Your task to perform on an android device: toggle location history Image 0: 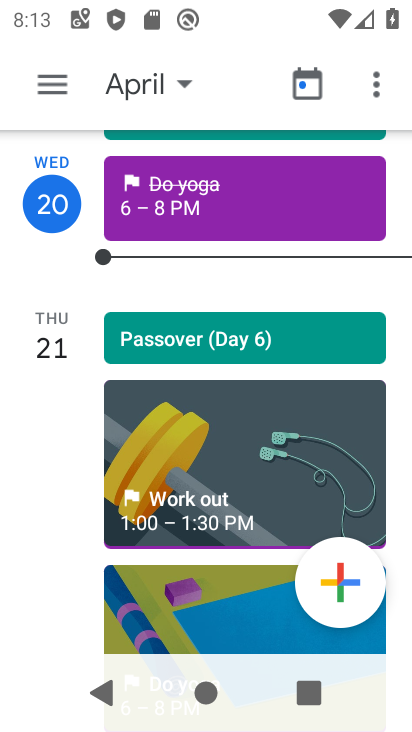
Step 0: press home button
Your task to perform on an android device: toggle location history Image 1: 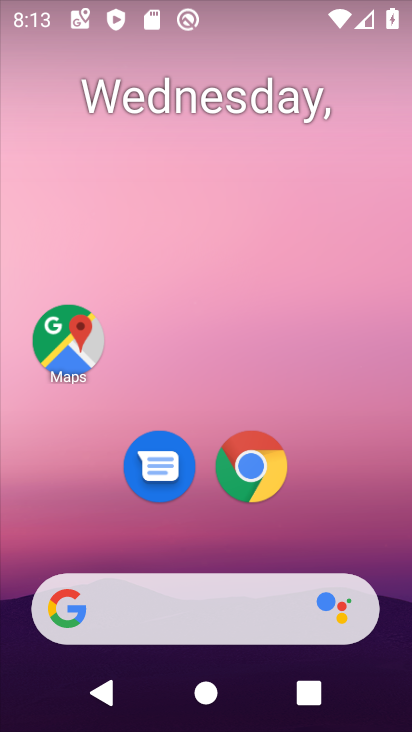
Step 1: drag from (247, 532) to (150, 24)
Your task to perform on an android device: toggle location history Image 2: 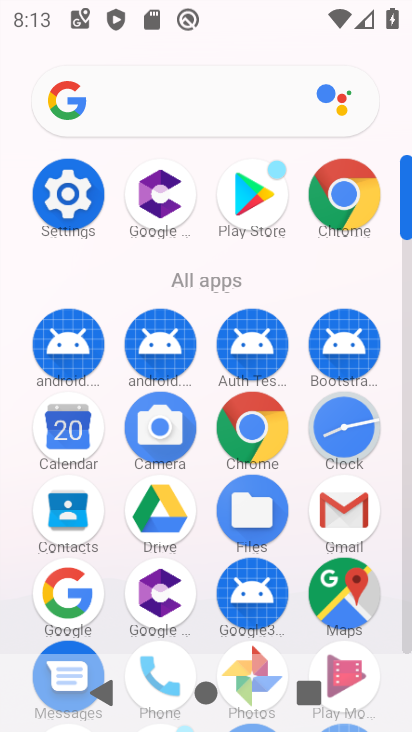
Step 2: click (55, 184)
Your task to perform on an android device: toggle location history Image 3: 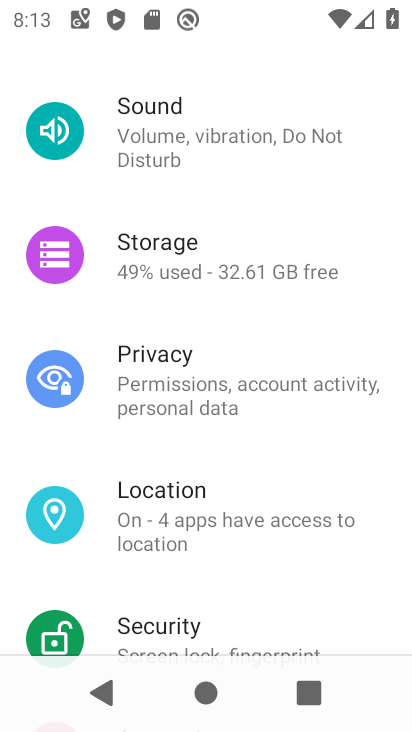
Step 3: click (183, 346)
Your task to perform on an android device: toggle location history Image 4: 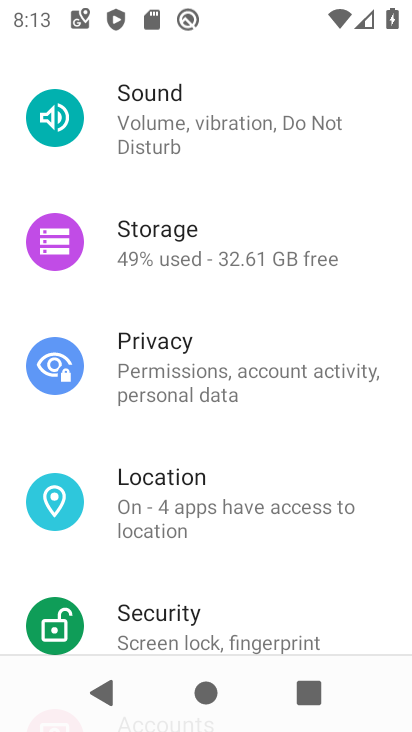
Step 4: click (164, 482)
Your task to perform on an android device: toggle location history Image 5: 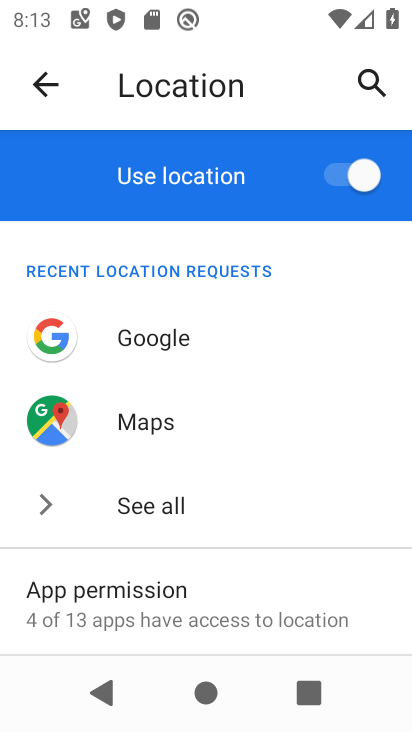
Step 5: drag from (196, 552) to (152, 373)
Your task to perform on an android device: toggle location history Image 6: 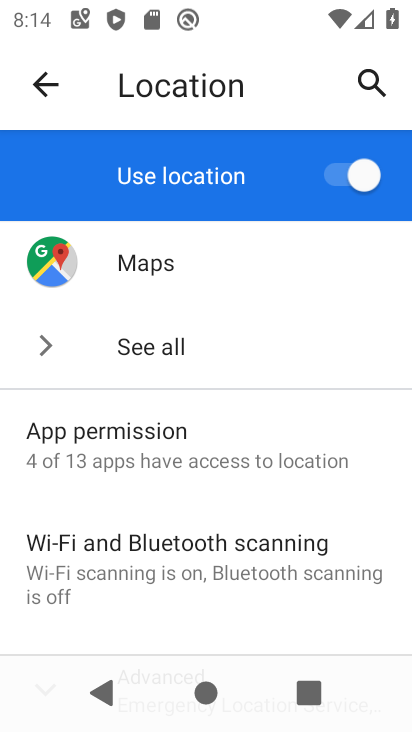
Step 6: drag from (174, 561) to (131, 313)
Your task to perform on an android device: toggle location history Image 7: 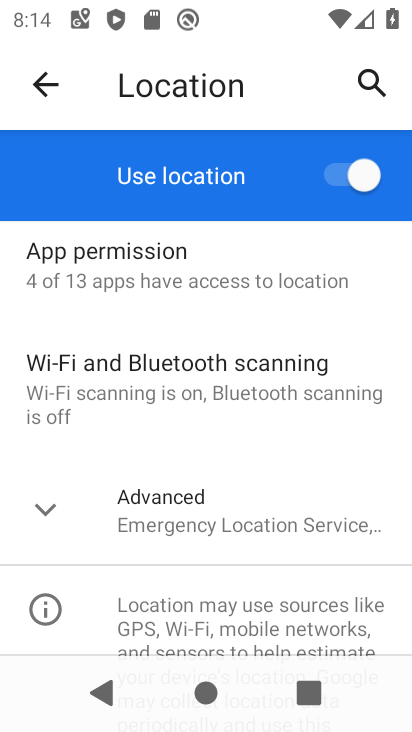
Step 7: click (142, 498)
Your task to perform on an android device: toggle location history Image 8: 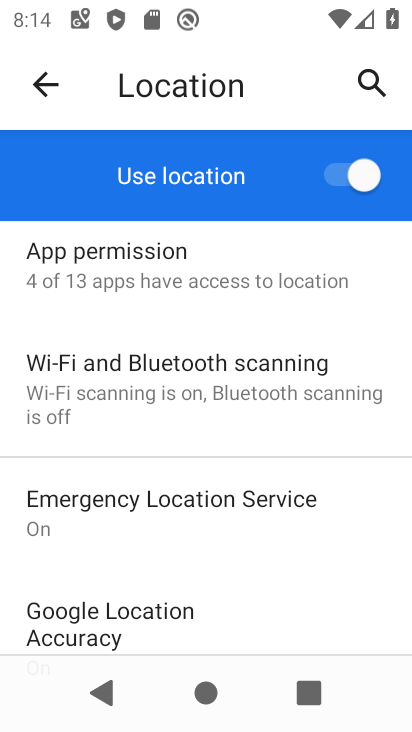
Step 8: drag from (187, 583) to (193, 359)
Your task to perform on an android device: toggle location history Image 9: 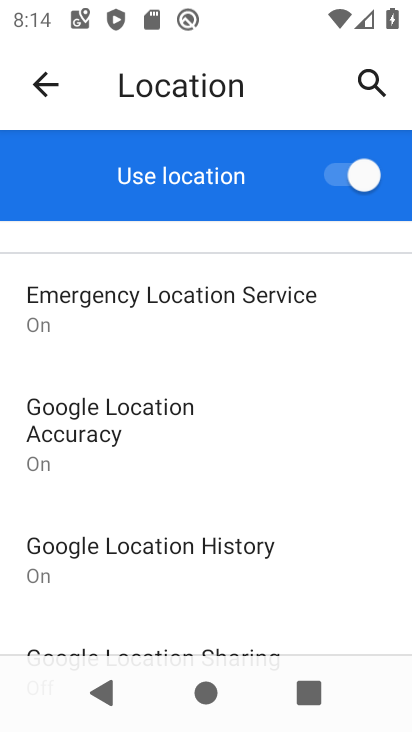
Step 9: click (215, 561)
Your task to perform on an android device: toggle location history Image 10: 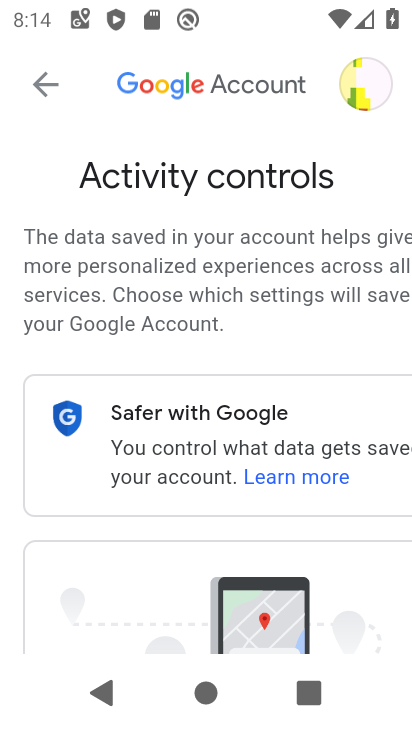
Step 10: drag from (179, 588) to (138, 332)
Your task to perform on an android device: toggle location history Image 11: 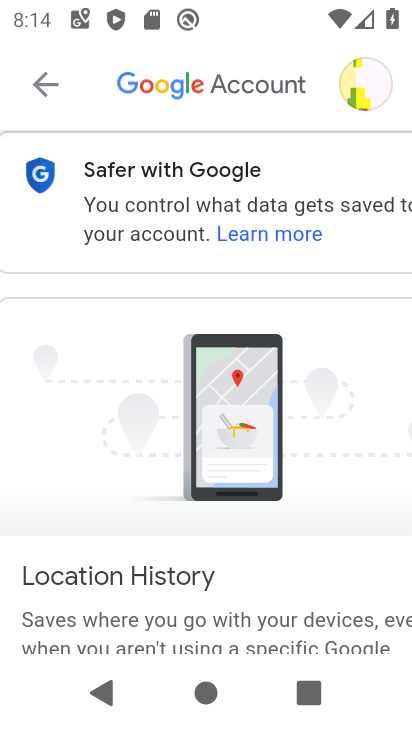
Step 11: drag from (119, 455) to (92, 276)
Your task to perform on an android device: toggle location history Image 12: 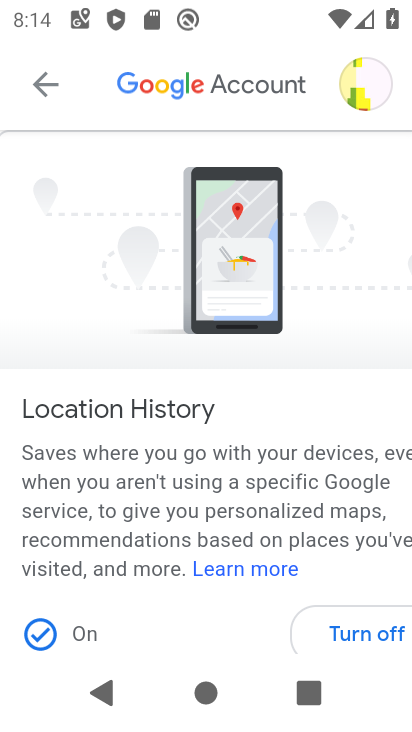
Step 12: click (352, 630)
Your task to perform on an android device: toggle location history Image 13: 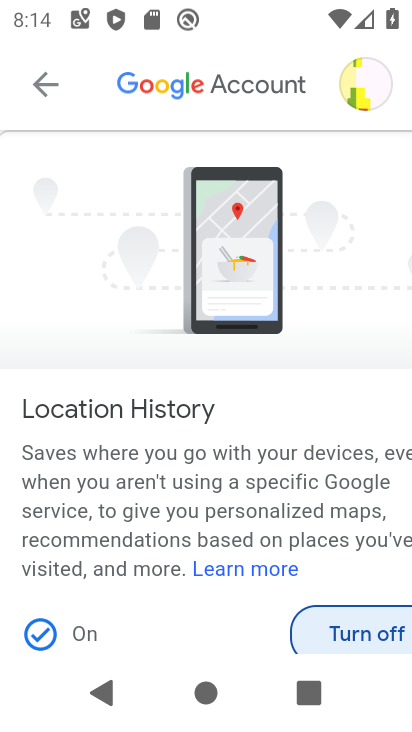
Step 13: click (388, 637)
Your task to perform on an android device: toggle location history Image 14: 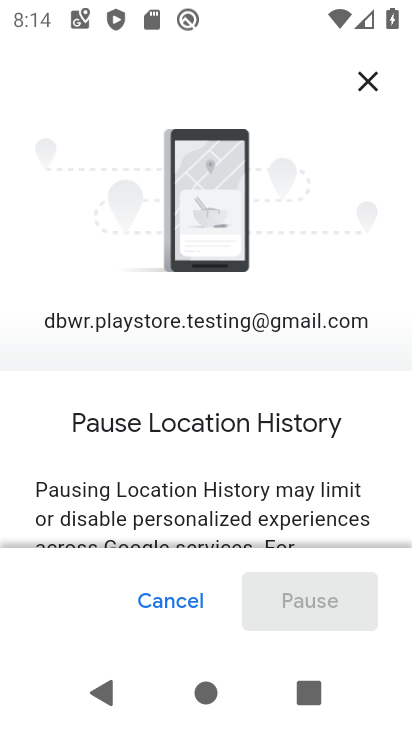
Step 14: drag from (258, 499) to (278, 199)
Your task to perform on an android device: toggle location history Image 15: 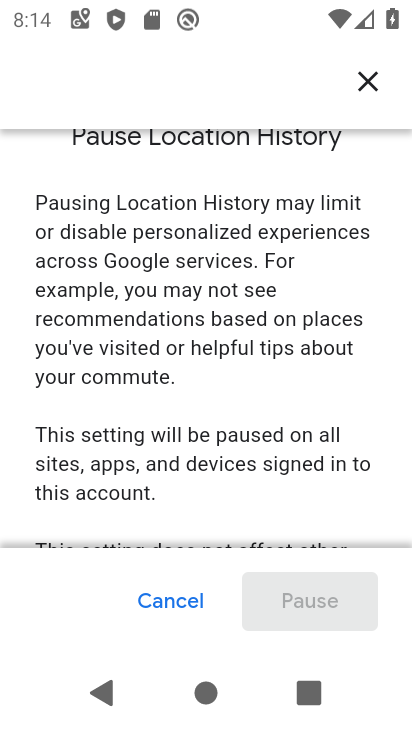
Step 15: drag from (349, 378) to (308, 236)
Your task to perform on an android device: toggle location history Image 16: 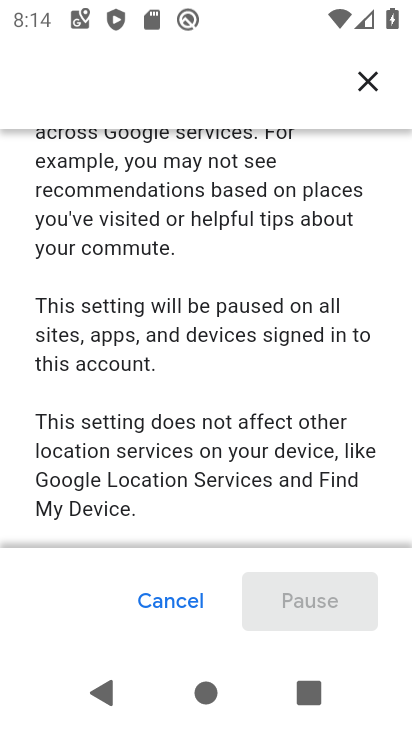
Step 16: drag from (294, 405) to (241, 222)
Your task to perform on an android device: toggle location history Image 17: 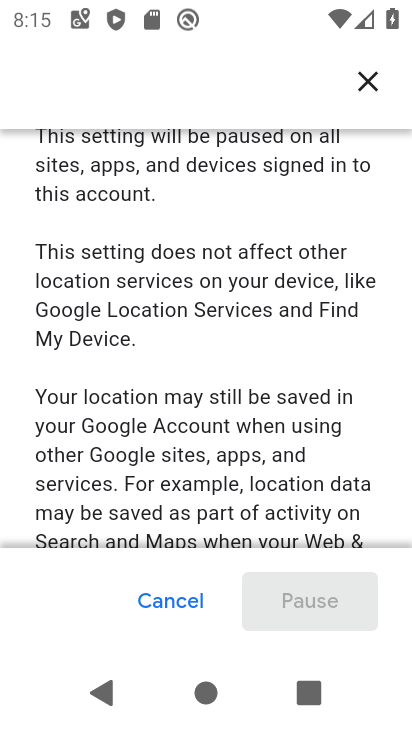
Step 17: drag from (121, 501) to (90, 297)
Your task to perform on an android device: toggle location history Image 18: 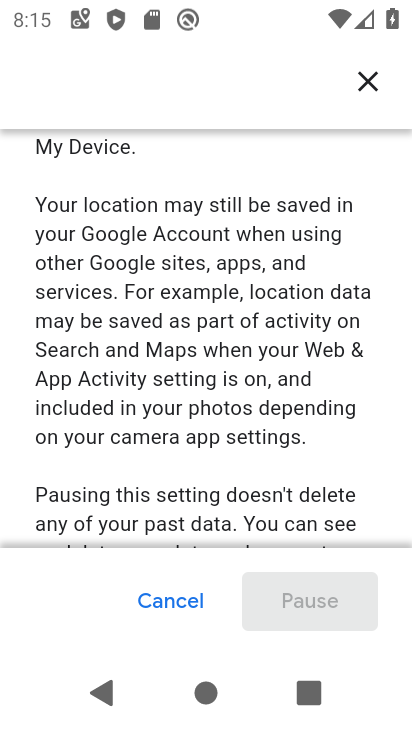
Step 18: drag from (208, 469) to (201, 195)
Your task to perform on an android device: toggle location history Image 19: 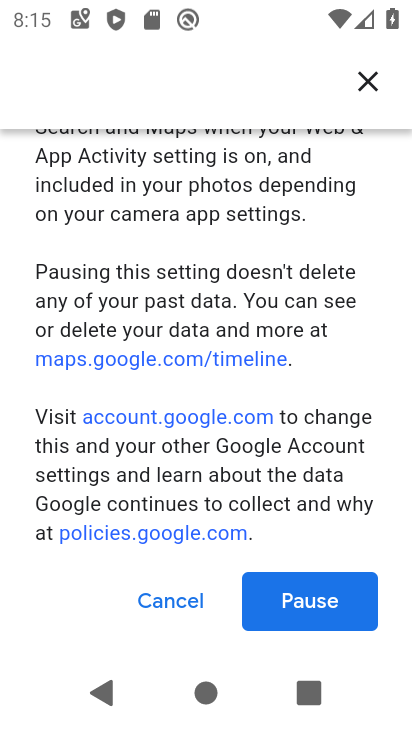
Step 19: click (311, 612)
Your task to perform on an android device: toggle location history Image 20: 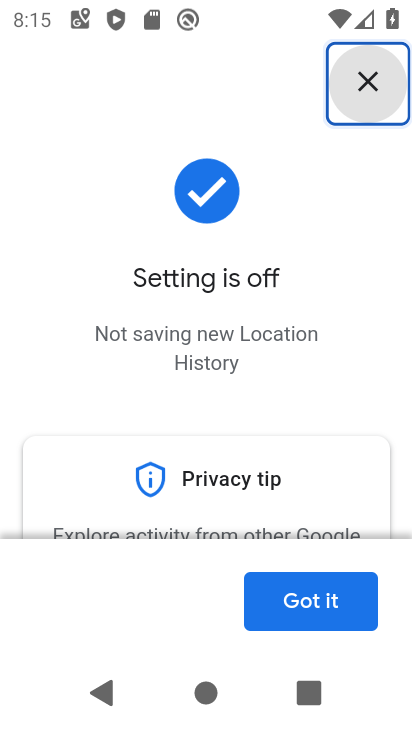
Step 20: task complete